Your task to perform on an android device: add a contact Image 0: 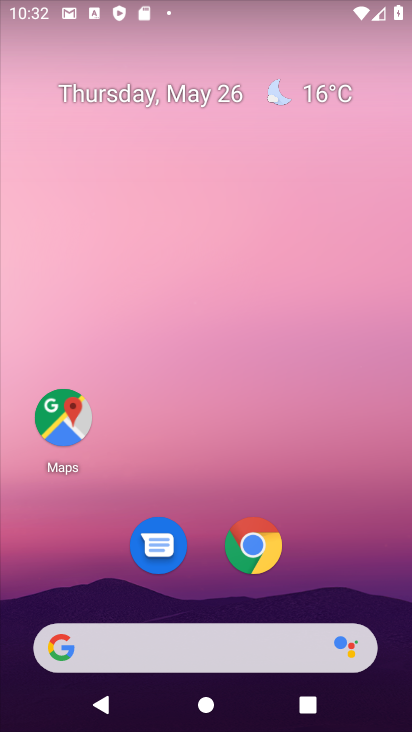
Step 0: press home button
Your task to perform on an android device: add a contact Image 1: 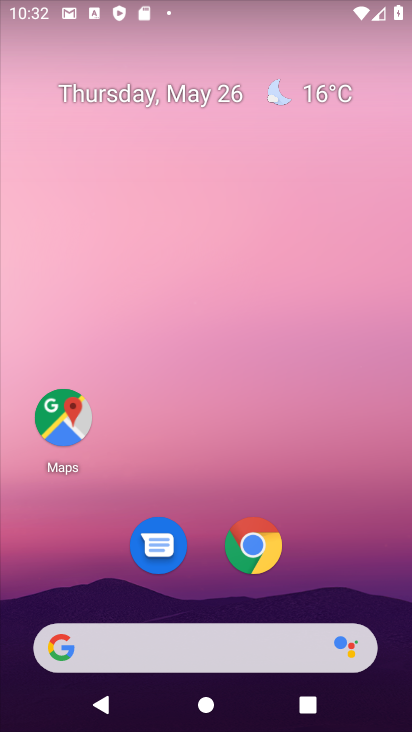
Step 1: drag from (173, 617) to (189, 200)
Your task to perform on an android device: add a contact Image 2: 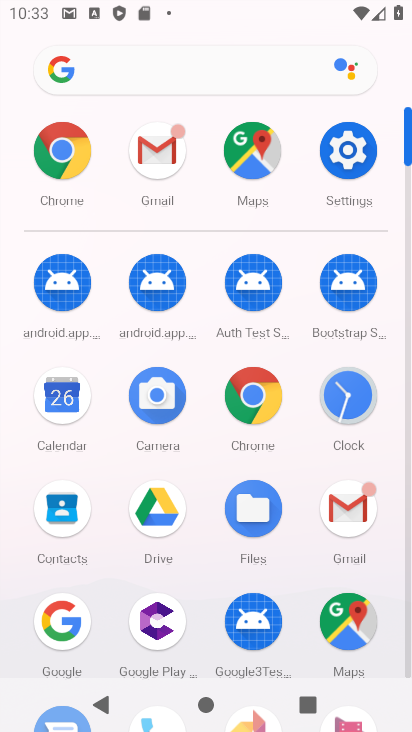
Step 2: drag from (375, 448) to (327, 138)
Your task to perform on an android device: add a contact Image 3: 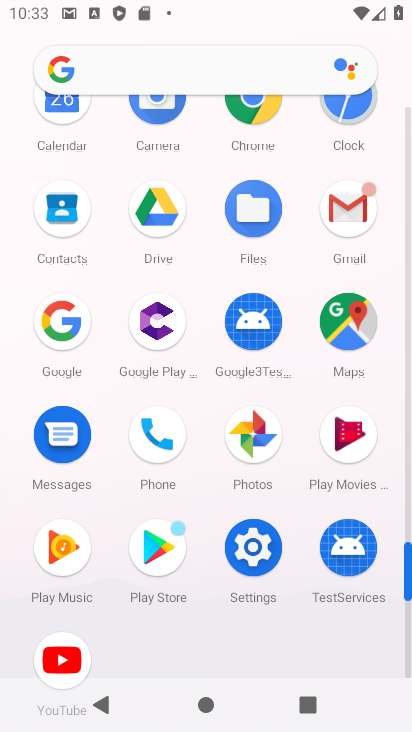
Step 3: click (59, 207)
Your task to perform on an android device: add a contact Image 4: 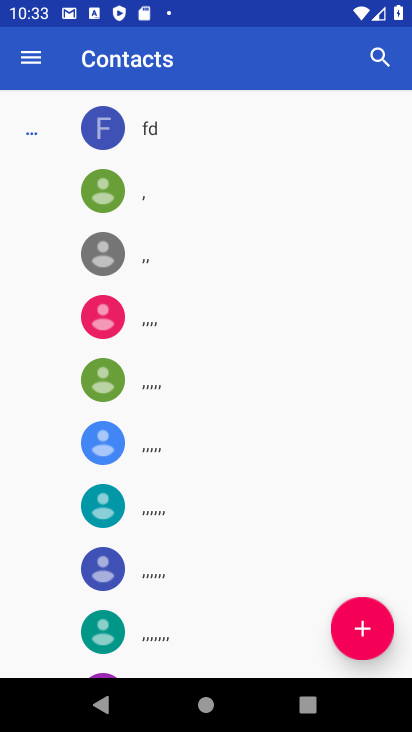
Step 4: click (364, 634)
Your task to perform on an android device: add a contact Image 5: 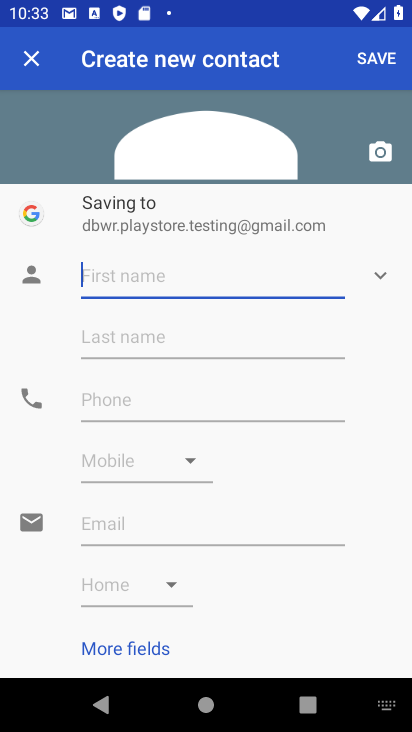
Step 5: type "vbvbvbvbv"
Your task to perform on an android device: add a contact Image 6: 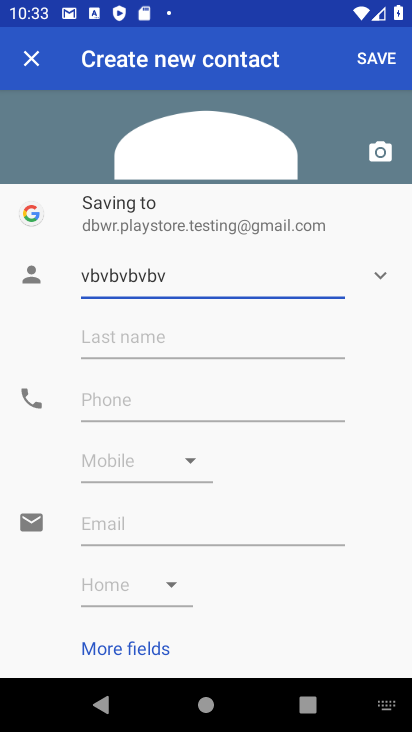
Step 6: click (149, 403)
Your task to perform on an android device: add a contact Image 7: 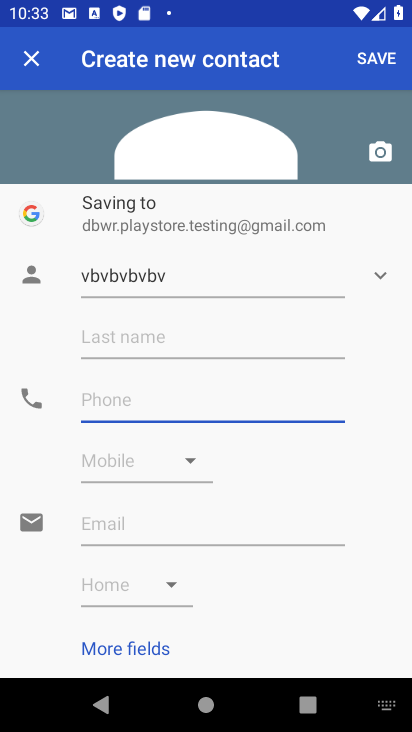
Step 7: type "677676"
Your task to perform on an android device: add a contact Image 8: 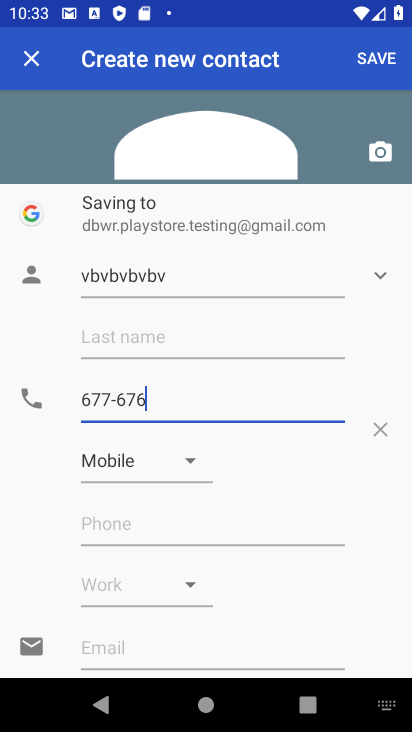
Step 8: click (382, 54)
Your task to perform on an android device: add a contact Image 9: 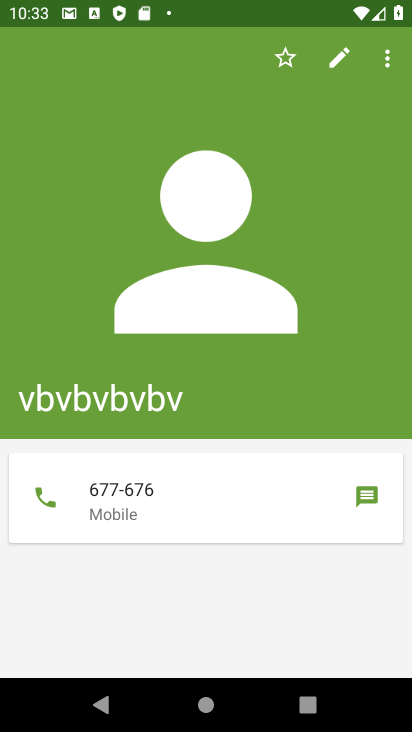
Step 9: task complete